Your task to perform on an android device: Open Google Maps Image 0: 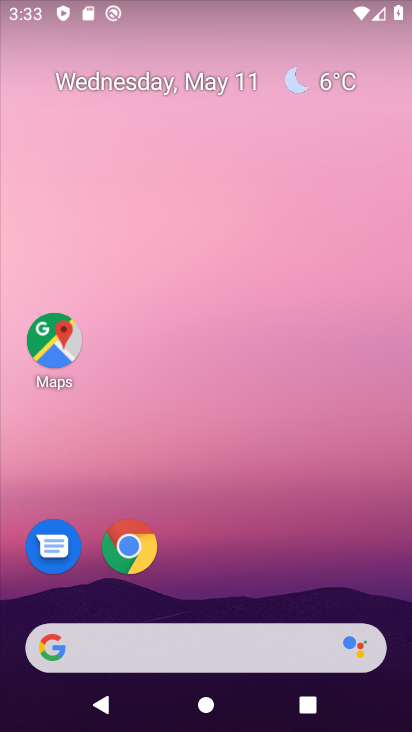
Step 0: click (43, 338)
Your task to perform on an android device: Open Google Maps Image 1: 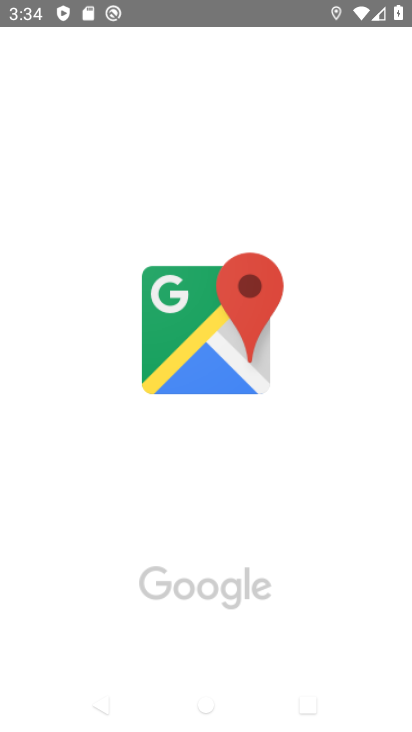
Step 1: click (222, 413)
Your task to perform on an android device: Open Google Maps Image 2: 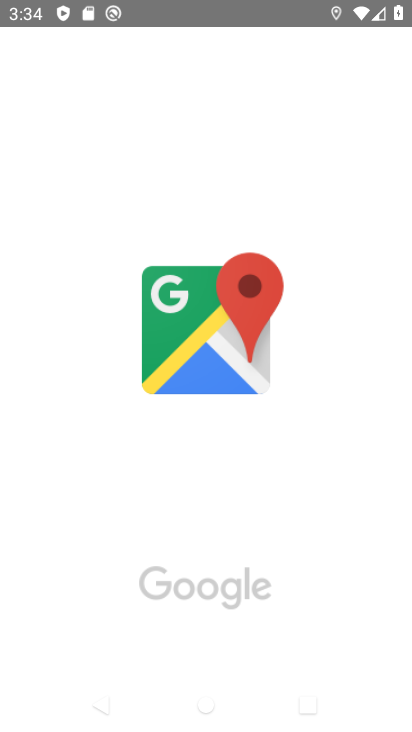
Step 2: task complete